Your task to perform on an android device: turn on translation in the chrome app Image 0: 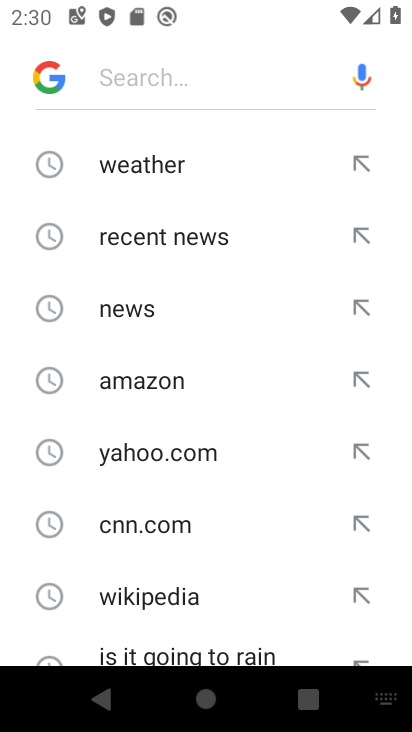
Step 0: press home button
Your task to perform on an android device: turn on translation in the chrome app Image 1: 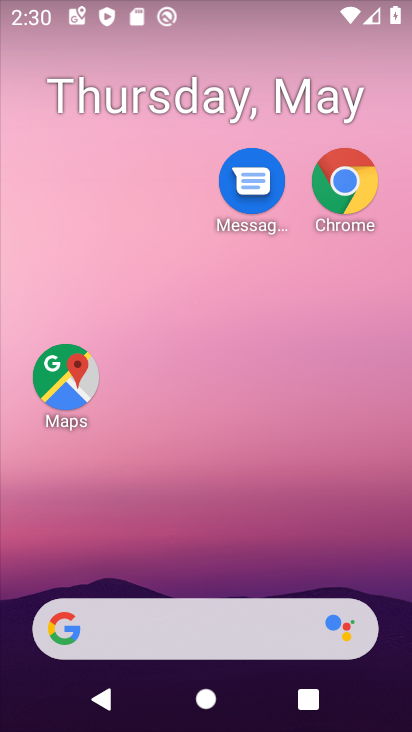
Step 1: drag from (213, 657) to (196, 25)
Your task to perform on an android device: turn on translation in the chrome app Image 2: 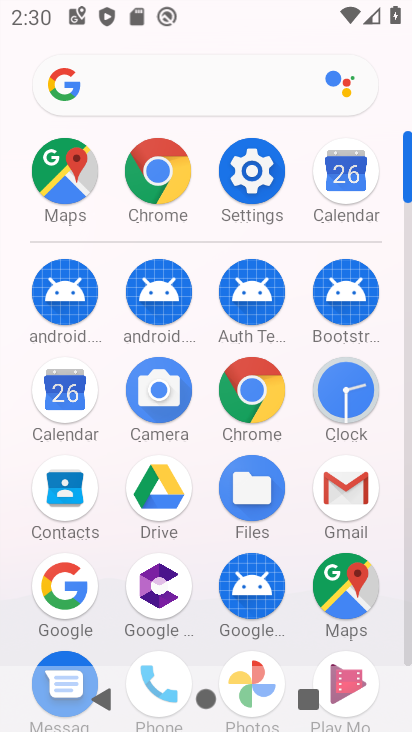
Step 2: click (247, 382)
Your task to perform on an android device: turn on translation in the chrome app Image 3: 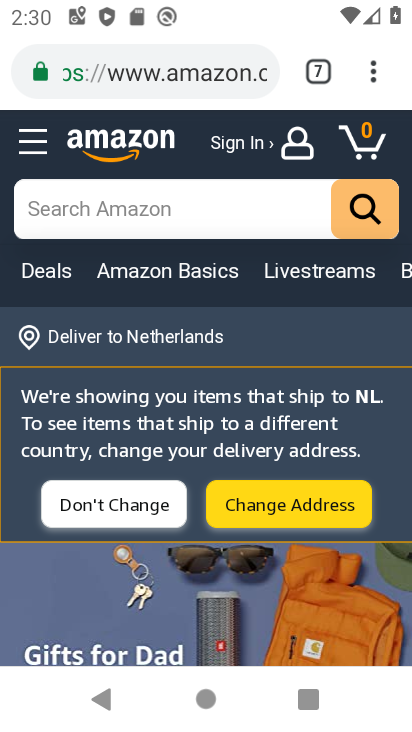
Step 3: drag from (377, 67) to (132, 507)
Your task to perform on an android device: turn on translation in the chrome app Image 4: 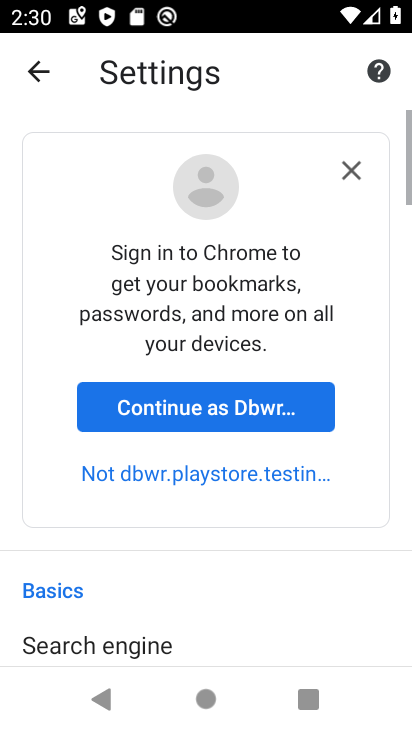
Step 4: drag from (183, 600) to (282, 7)
Your task to perform on an android device: turn on translation in the chrome app Image 5: 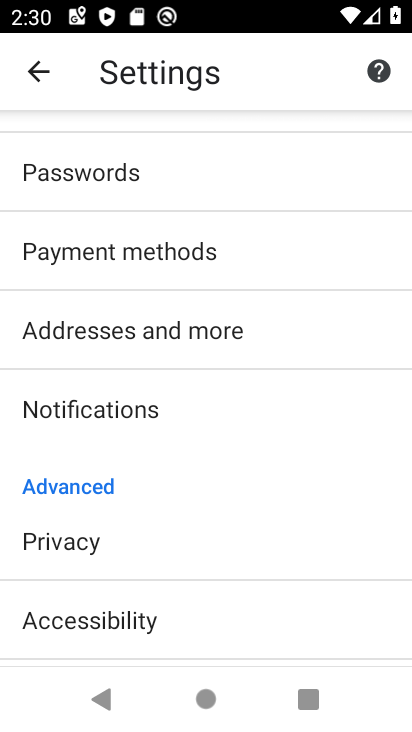
Step 5: drag from (253, 619) to (297, 281)
Your task to perform on an android device: turn on translation in the chrome app Image 6: 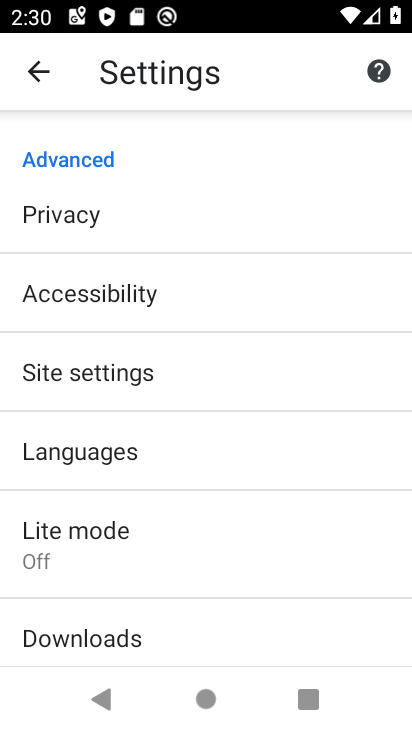
Step 6: click (127, 456)
Your task to perform on an android device: turn on translation in the chrome app Image 7: 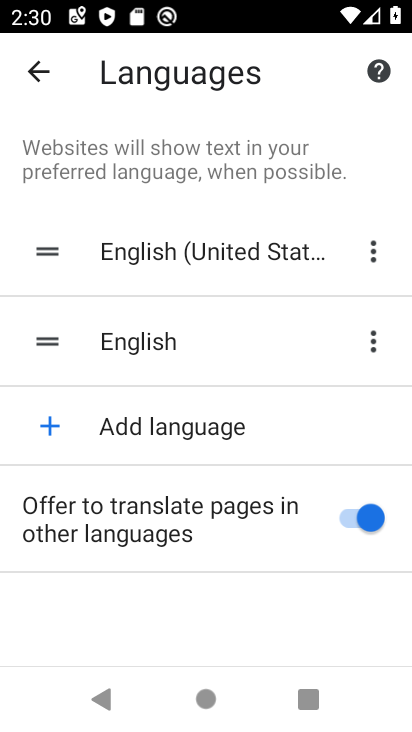
Step 7: task complete